Your task to perform on an android device: Search for flights from NYC to Mexico city Image 0: 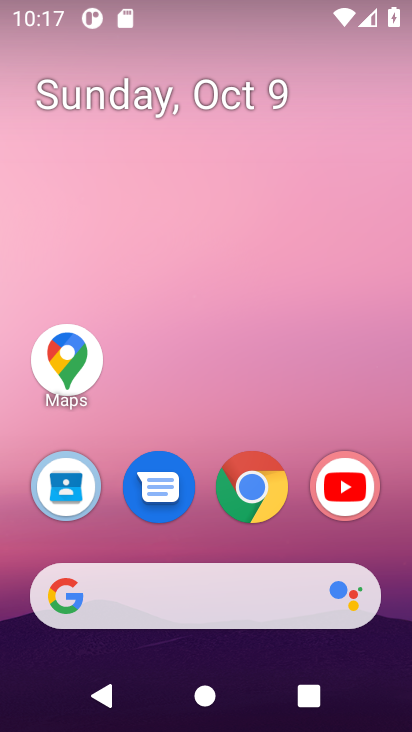
Step 0: click (244, 510)
Your task to perform on an android device: Search for flights from NYC to Mexico city Image 1: 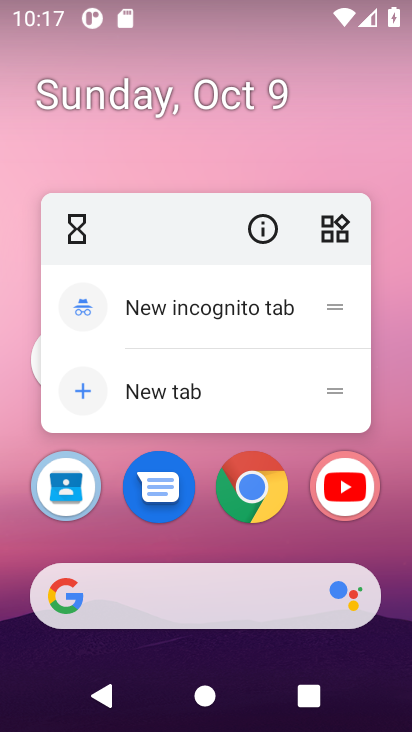
Step 1: click (244, 510)
Your task to perform on an android device: Search for flights from NYC to Mexico city Image 2: 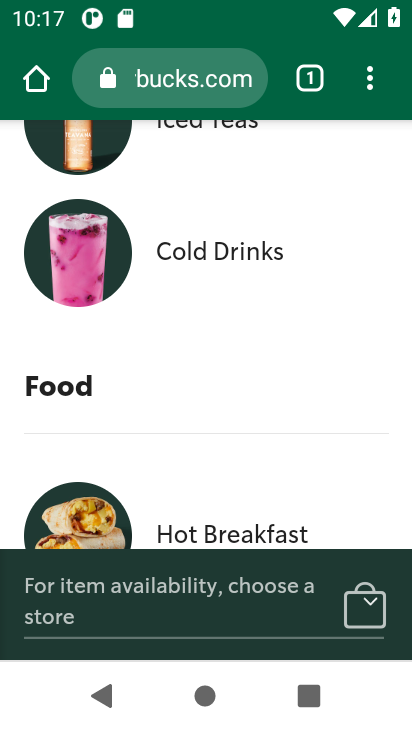
Step 2: click (202, 82)
Your task to perform on an android device: Search for flights from NYC to Mexico city Image 3: 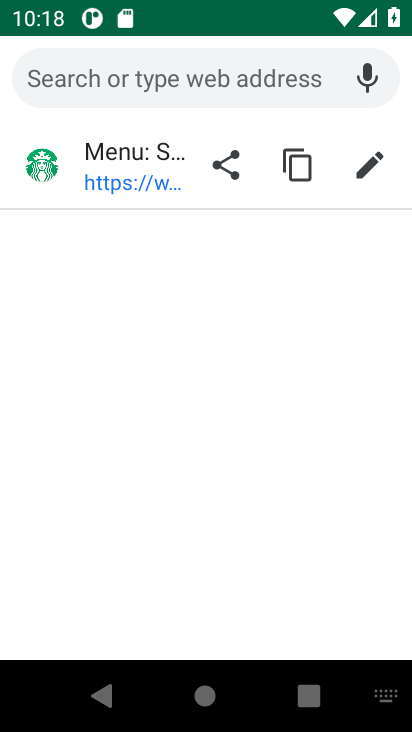
Step 3: type "flights from nyc to mexico city"
Your task to perform on an android device: Search for flights from NYC to Mexico city Image 4: 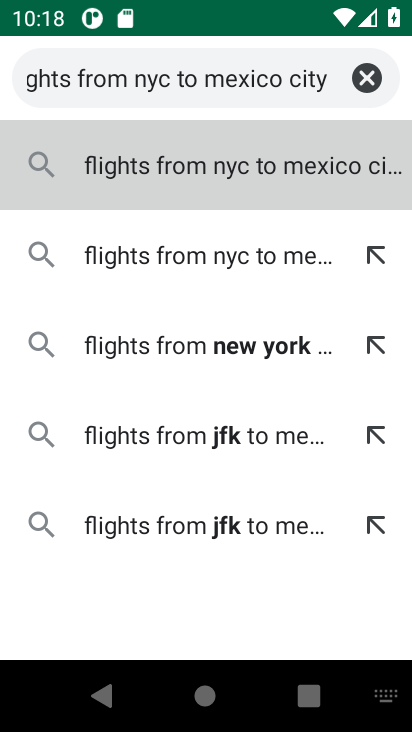
Step 4: type ""
Your task to perform on an android device: Search for flights from NYC to Mexico city Image 5: 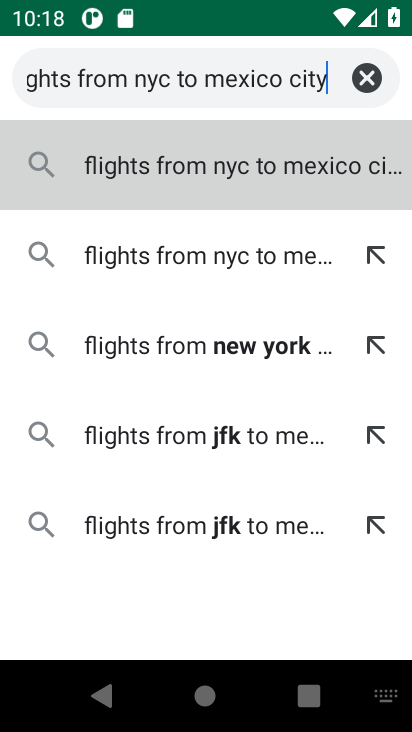
Step 5: press enter
Your task to perform on an android device: Search for flights from NYC to Mexico city Image 6: 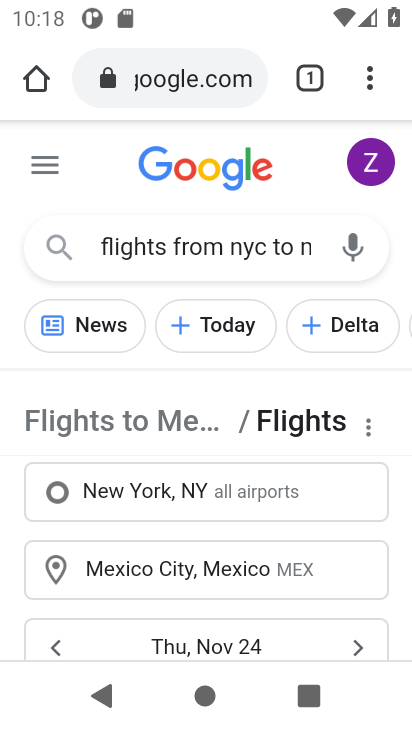
Step 6: drag from (180, 379) to (176, 228)
Your task to perform on an android device: Search for flights from NYC to Mexico city Image 7: 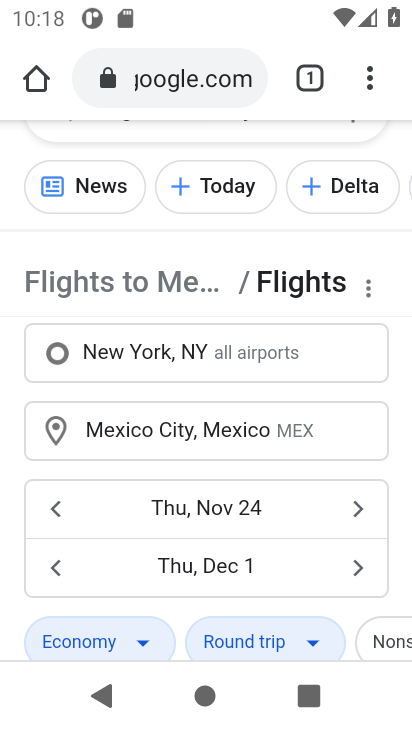
Step 7: drag from (169, 571) to (177, 250)
Your task to perform on an android device: Search for flights from NYC to Mexico city Image 8: 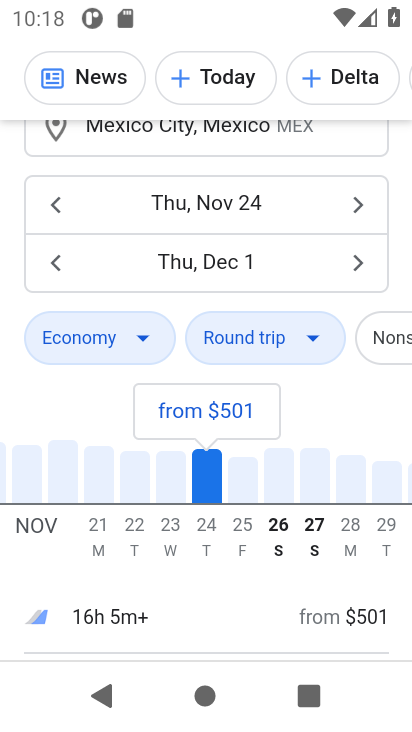
Step 8: drag from (129, 492) to (135, 270)
Your task to perform on an android device: Search for flights from NYC to Mexico city Image 9: 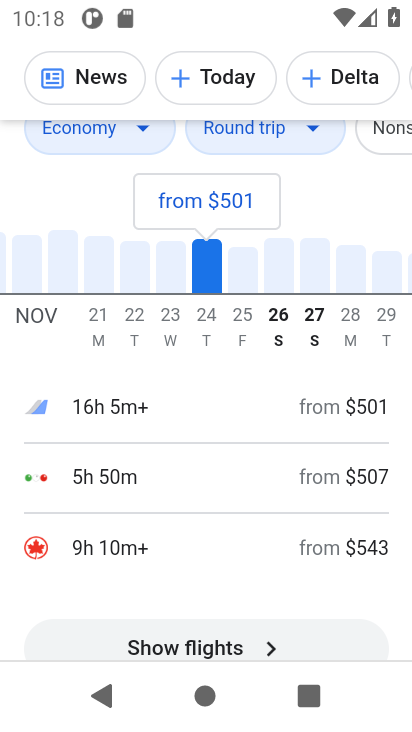
Step 9: drag from (174, 547) to (183, 215)
Your task to perform on an android device: Search for flights from NYC to Mexico city Image 10: 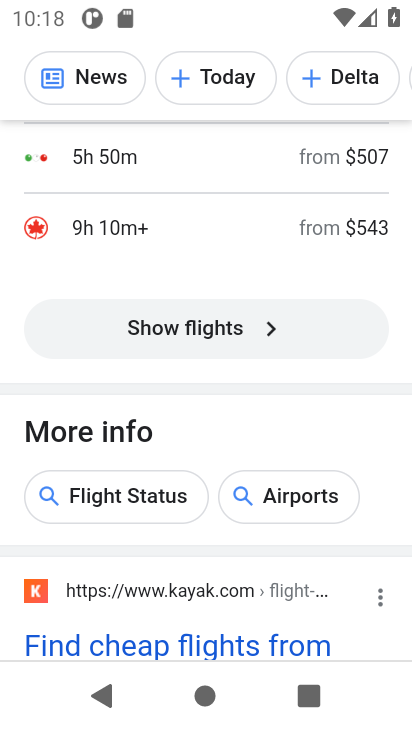
Step 10: drag from (208, 590) to (213, 204)
Your task to perform on an android device: Search for flights from NYC to Mexico city Image 11: 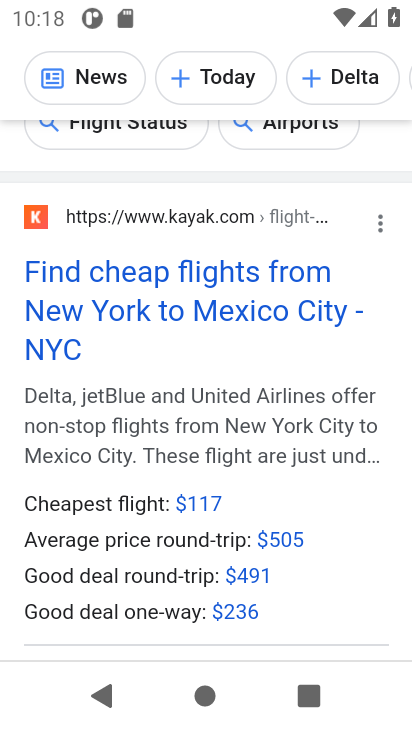
Step 11: drag from (263, 617) to (243, 269)
Your task to perform on an android device: Search for flights from NYC to Mexico city Image 12: 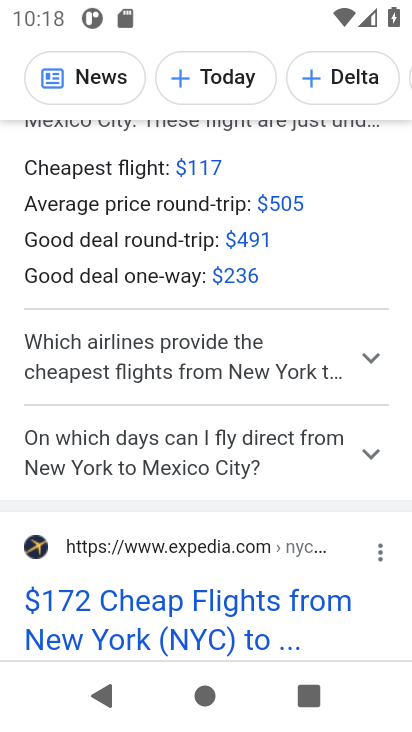
Step 12: drag from (229, 562) to (227, 266)
Your task to perform on an android device: Search for flights from NYC to Mexico city Image 13: 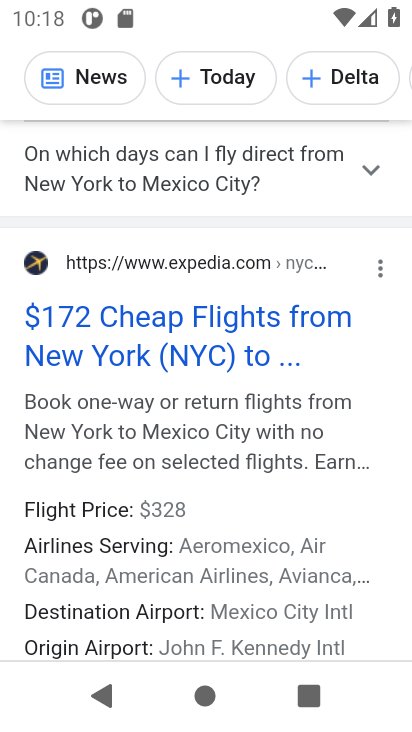
Step 13: drag from (234, 502) to (229, 285)
Your task to perform on an android device: Search for flights from NYC to Mexico city Image 14: 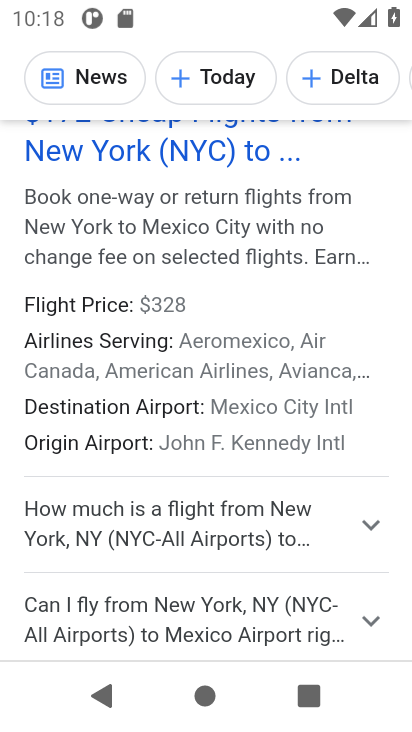
Step 14: drag from (188, 561) to (184, 366)
Your task to perform on an android device: Search for flights from NYC to Mexico city Image 15: 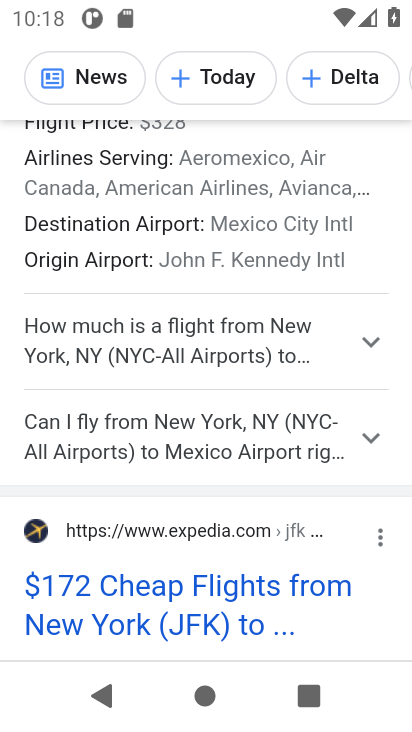
Step 15: drag from (192, 544) to (184, 372)
Your task to perform on an android device: Search for flights from NYC to Mexico city Image 16: 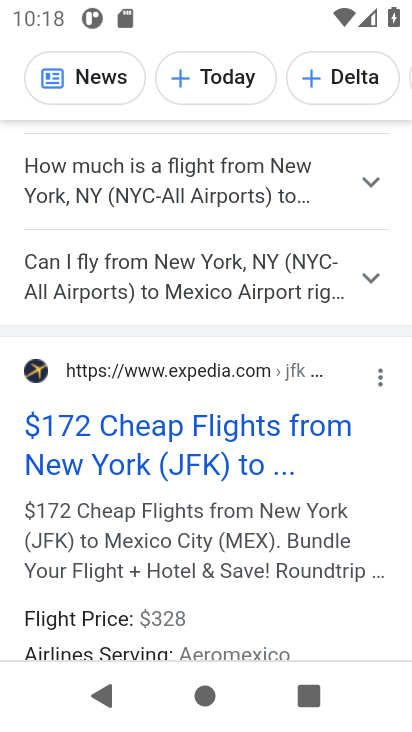
Step 16: click (172, 397)
Your task to perform on an android device: Search for flights from NYC to Mexico city Image 17: 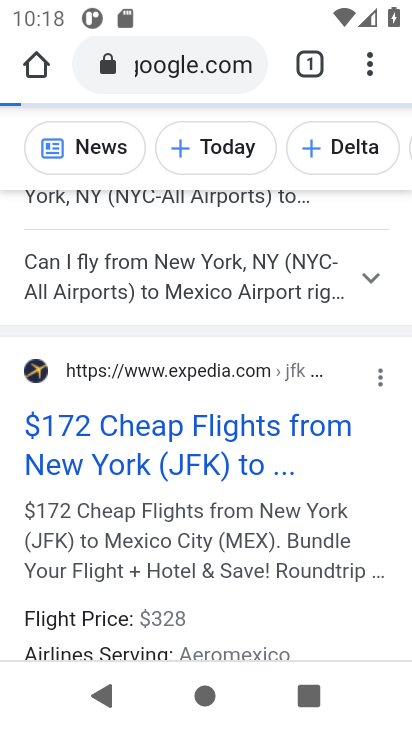
Step 17: click (169, 426)
Your task to perform on an android device: Search for flights from NYC to Mexico city Image 18: 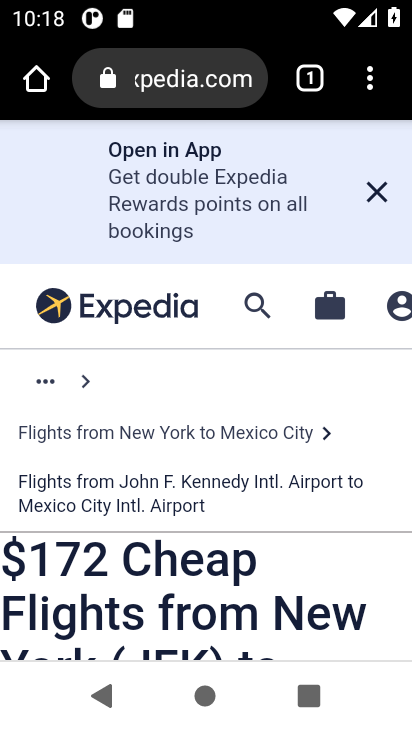
Step 18: task complete